Your task to perform on an android device: toggle airplane mode Image 0: 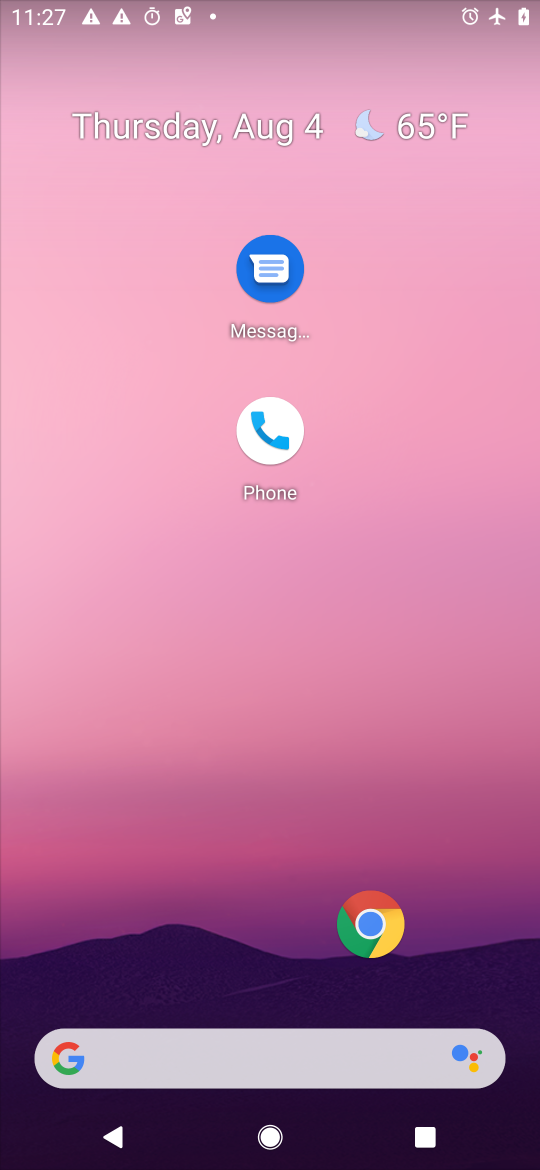
Step 0: drag from (194, 756) to (222, 393)
Your task to perform on an android device: toggle airplane mode Image 1: 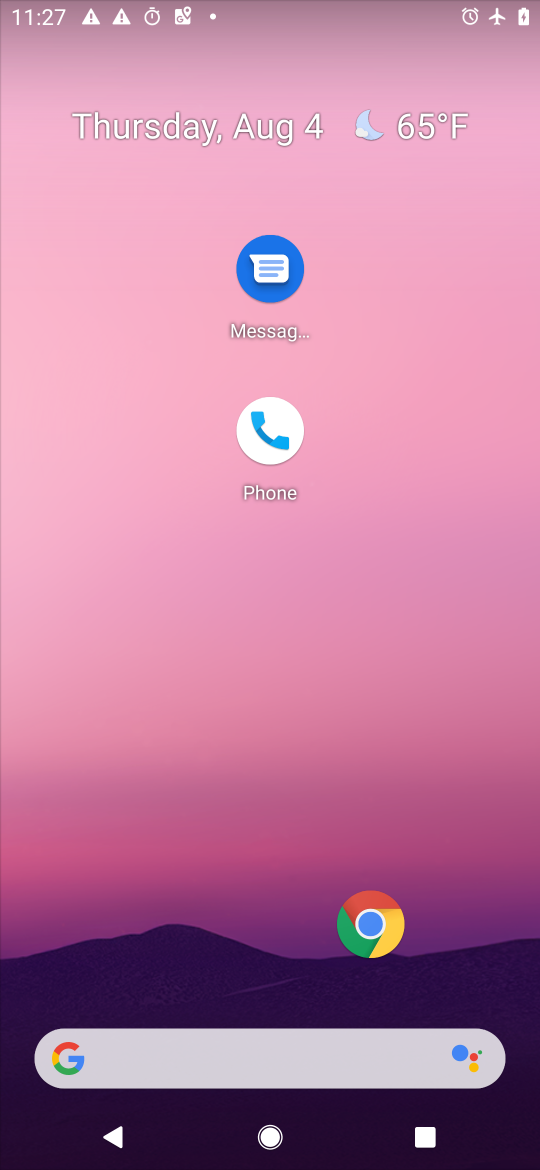
Step 1: drag from (276, 378) to (278, 119)
Your task to perform on an android device: toggle airplane mode Image 2: 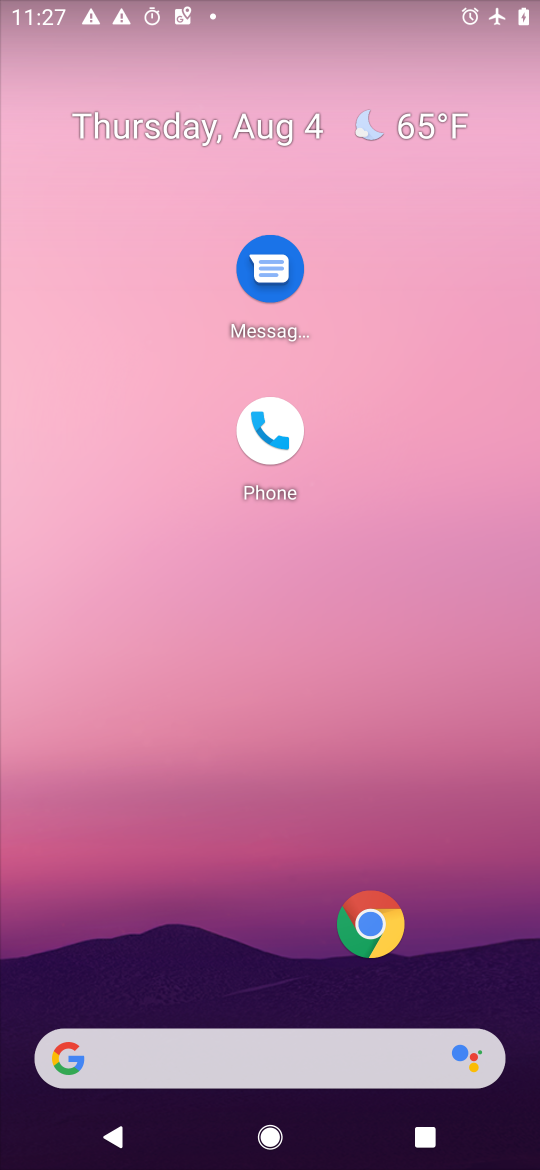
Step 2: drag from (245, 991) to (249, 207)
Your task to perform on an android device: toggle airplane mode Image 3: 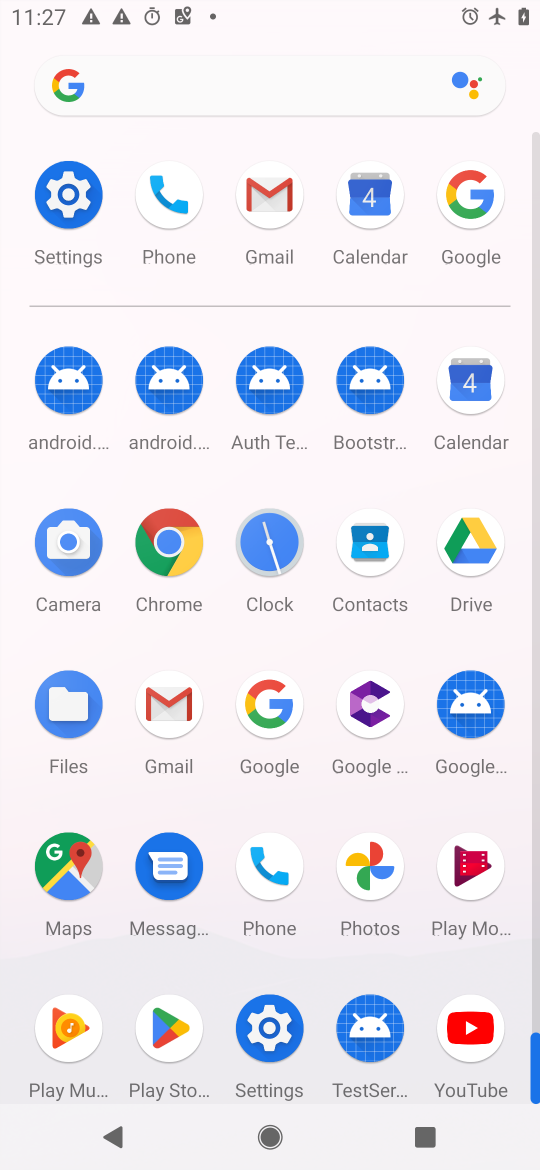
Step 3: click (274, 1021)
Your task to perform on an android device: toggle airplane mode Image 4: 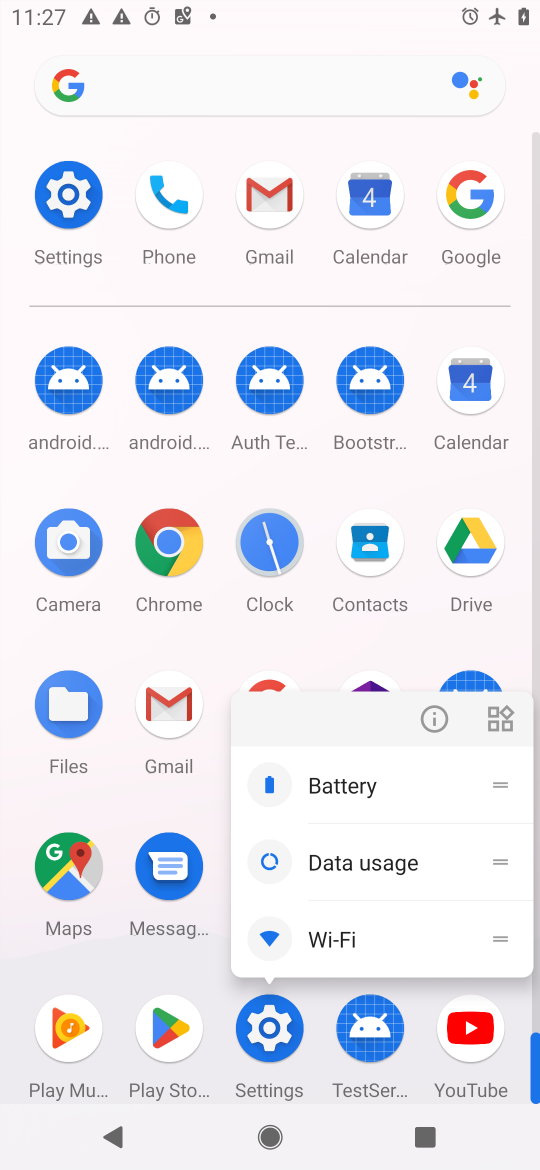
Step 4: click (406, 717)
Your task to perform on an android device: toggle airplane mode Image 5: 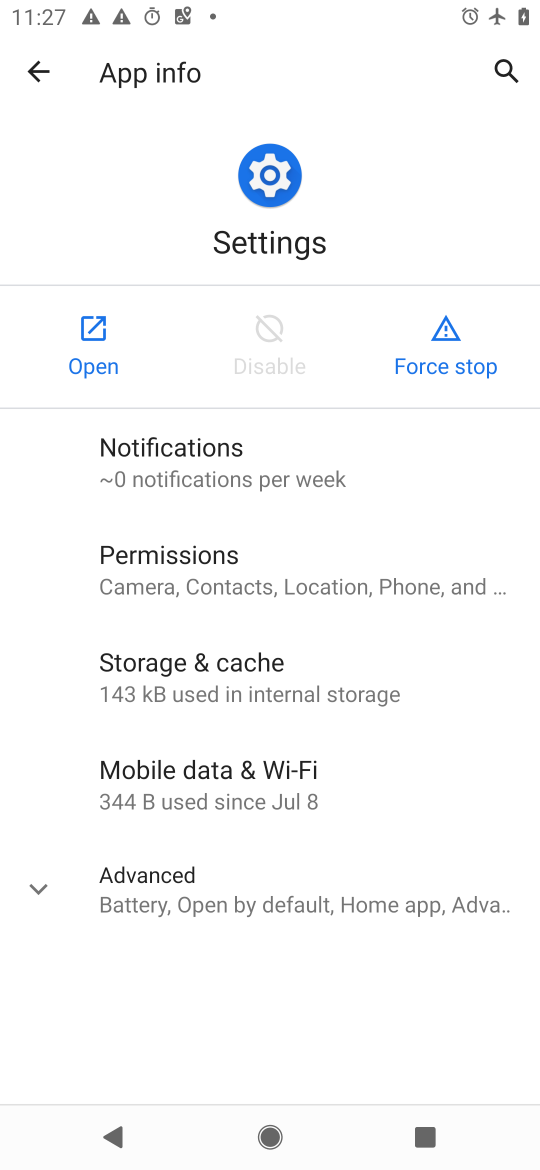
Step 5: click (64, 348)
Your task to perform on an android device: toggle airplane mode Image 6: 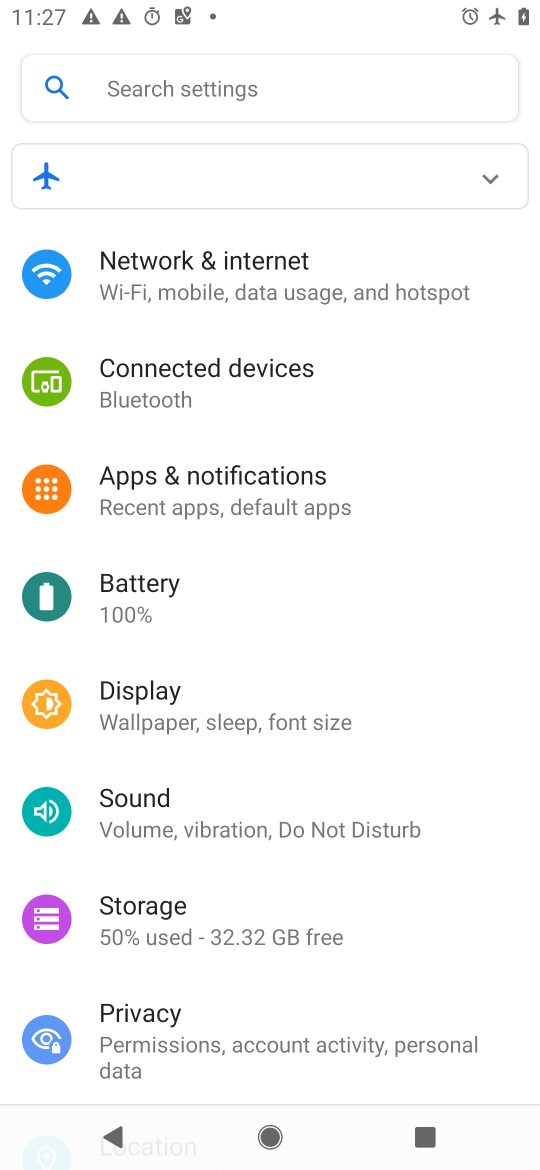
Step 6: click (212, 296)
Your task to perform on an android device: toggle airplane mode Image 7: 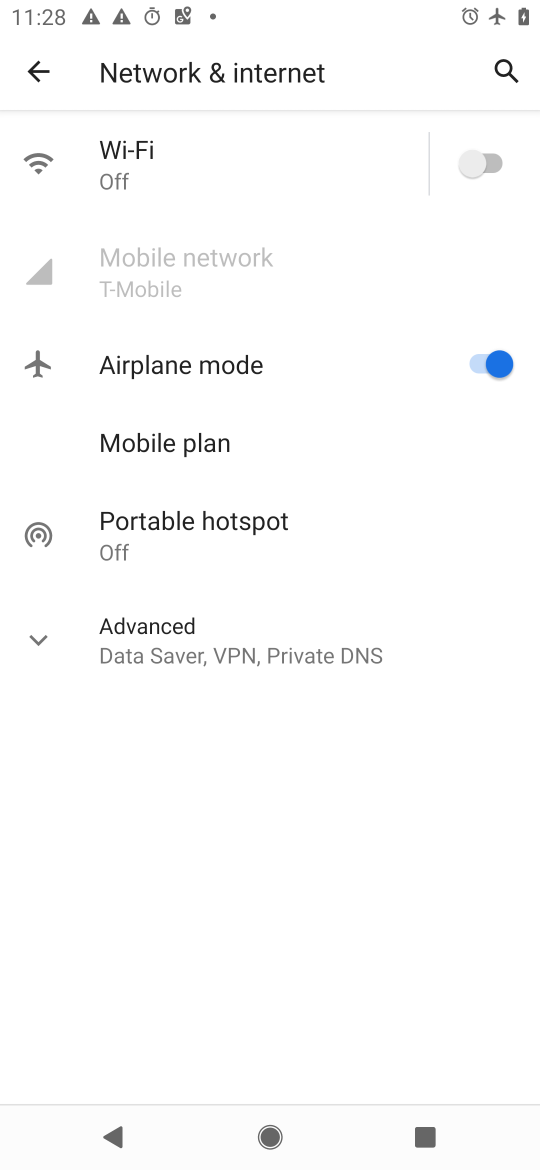
Step 7: click (186, 677)
Your task to perform on an android device: toggle airplane mode Image 8: 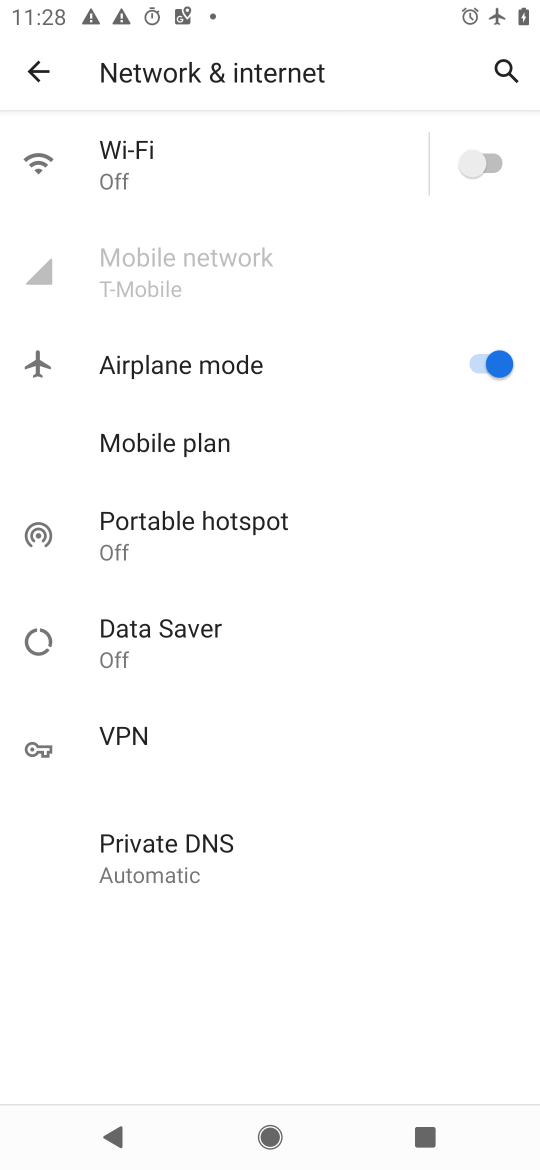
Step 8: click (352, 357)
Your task to perform on an android device: toggle airplane mode Image 9: 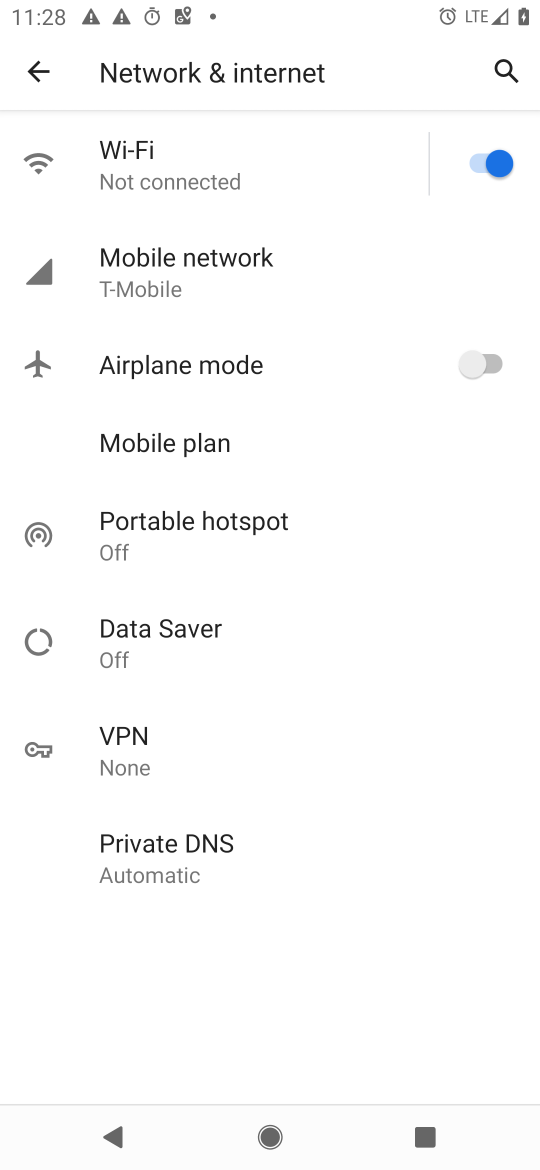
Step 9: task complete